Your task to perform on an android device: toggle notifications settings in the gmail app Image 0: 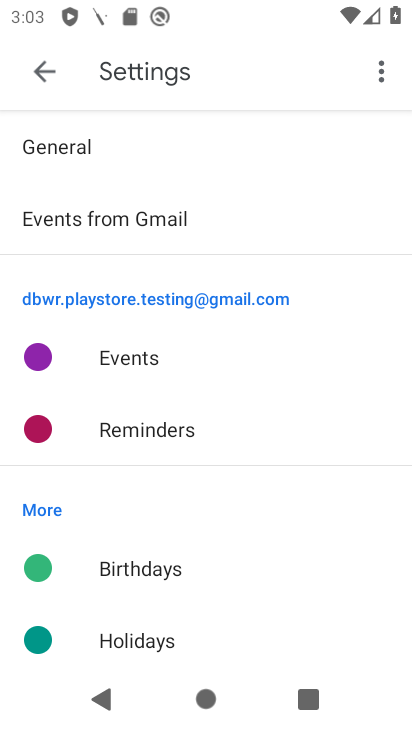
Step 0: press home button
Your task to perform on an android device: toggle notifications settings in the gmail app Image 1: 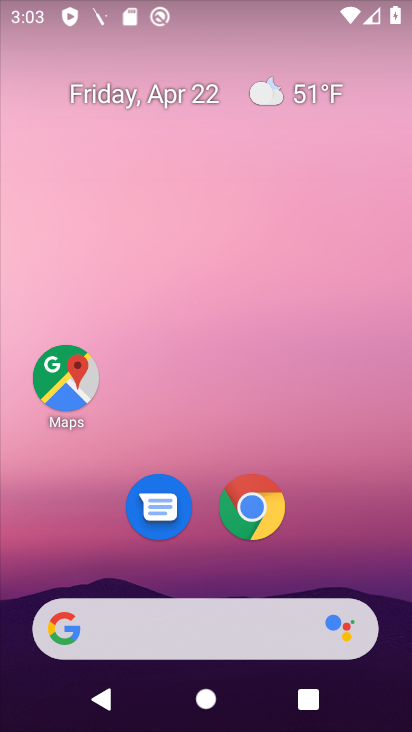
Step 1: drag from (141, 626) to (310, 111)
Your task to perform on an android device: toggle notifications settings in the gmail app Image 2: 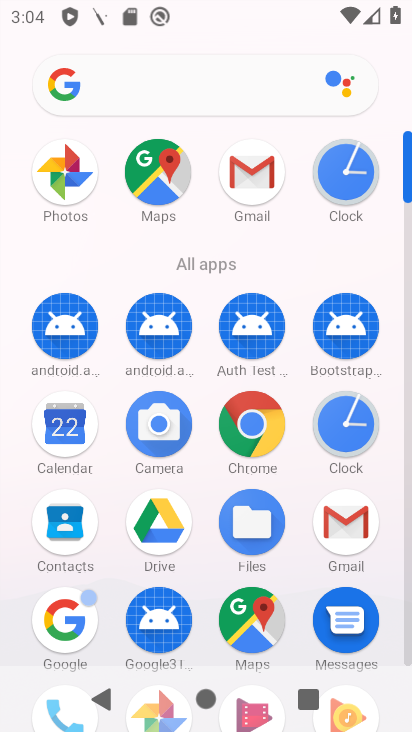
Step 2: click (242, 192)
Your task to perform on an android device: toggle notifications settings in the gmail app Image 3: 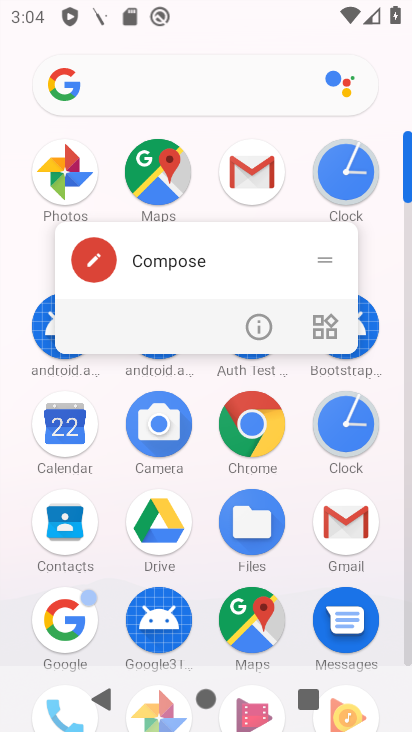
Step 3: click (253, 183)
Your task to perform on an android device: toggle notifications settings in the gmail app Image 4: 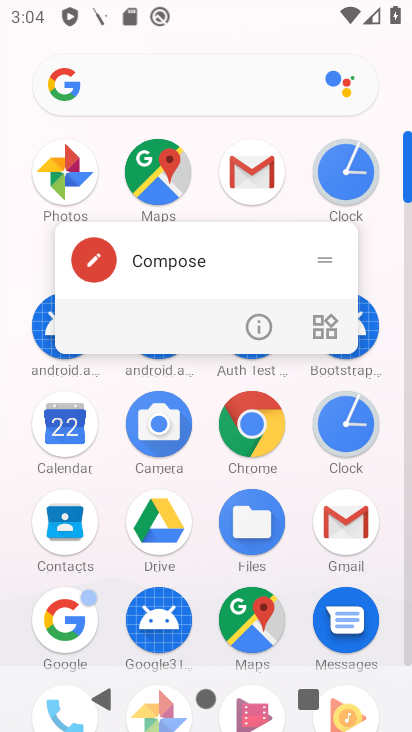
Step 4: click (246, 175)
Your task to perform on an android device: toggle notifications settings in the gmail app Image 5: 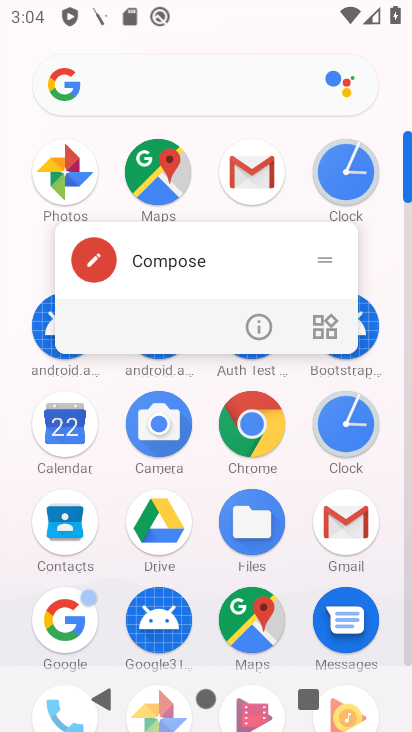
Step 5: click (248, 180)
Your task to perform on an android device: toggle notifications settings in the gmail app Image 6: 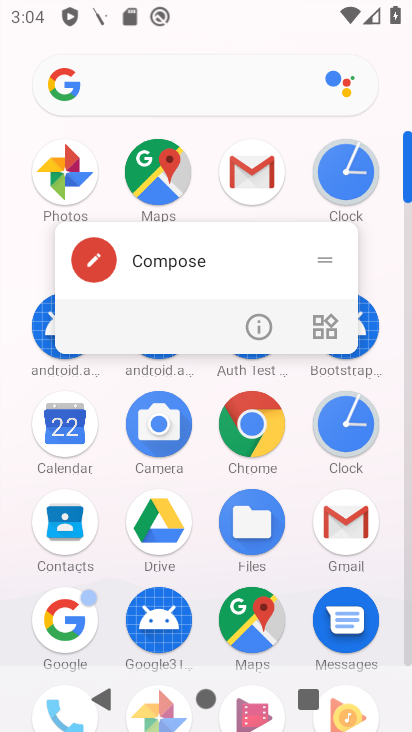
Step 6: click (248, 180)
Your task to perform on an android device: toggle notifications settings in the gmail app Image 7: 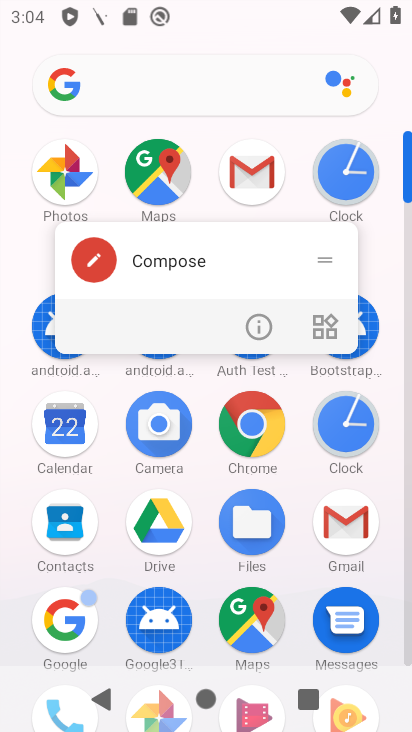
Step 7: click (248, 179)
Your task to perform on an android device: toggle notifications settings in the gmail app Image 8: 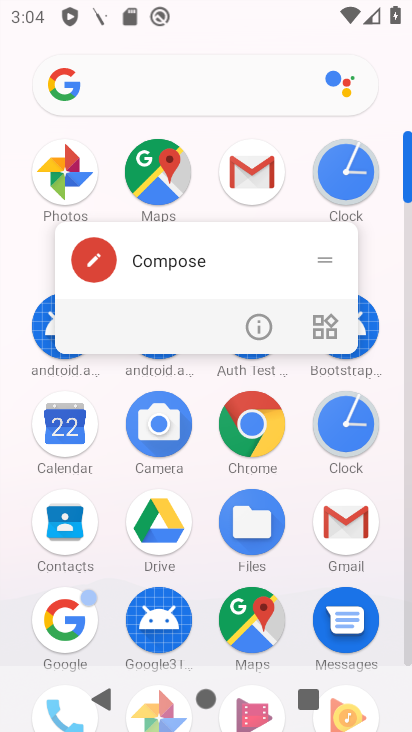
Step 8: click (252, 178)
Your task to perform on an android device: toggle notifications settings in the gmail app Image 9: 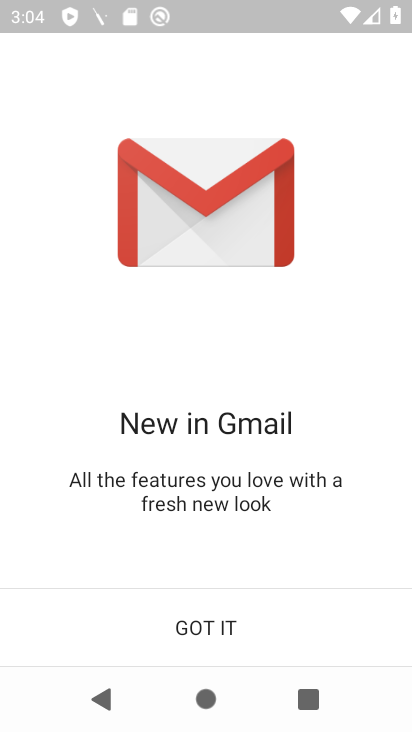
Step 9: click (194, 625)
Your task to perform on an android device: toggle notifications settings in the gmail app Image 10: 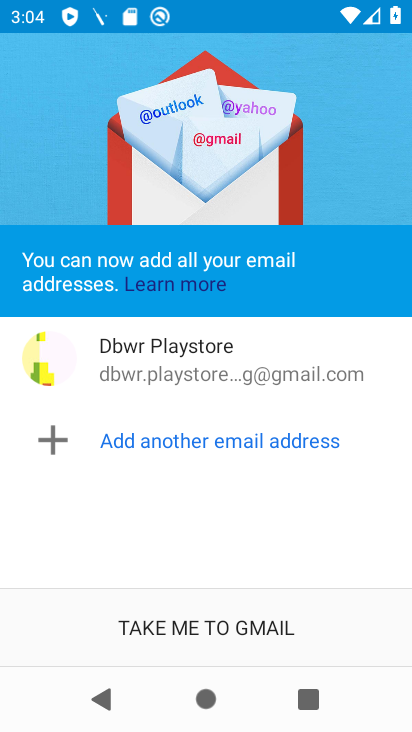
Step 10: click (192, 625)
Your task to perform on an android device: toggle notifications settings in the gmail app Image 11: 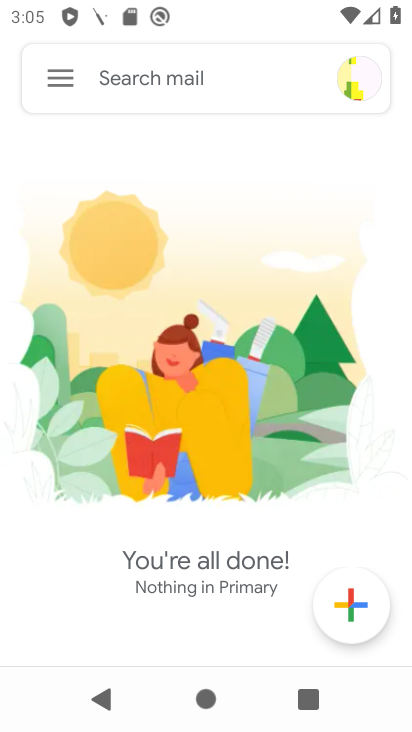
Step 11: click (65, 84)
Your task to perform on an android device: toggle notifications settings in the gmail app Image 12: 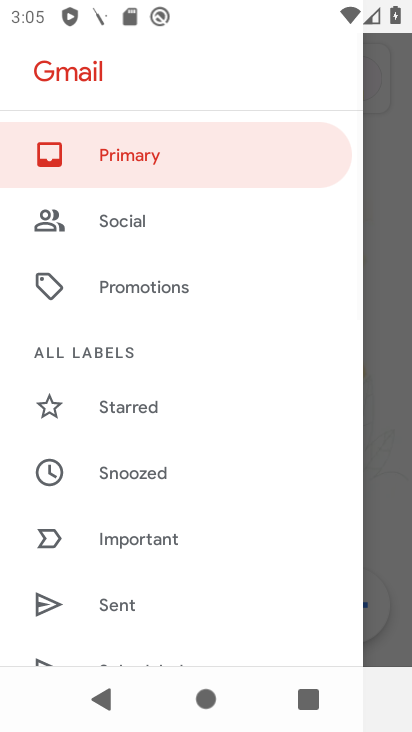
Step 12: drag from (177, 526) to (239, 172)
Your task to perform on an android device: toggle notifications settings in the gmail app Image 13: 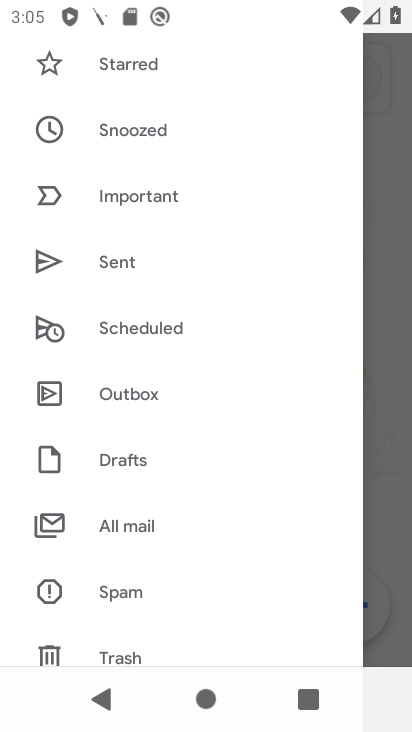
Step 13: drag from (176, 626) to (249, 314)
Your task to perform on an android device: toggle notifications settings in the gmail app Image 14: 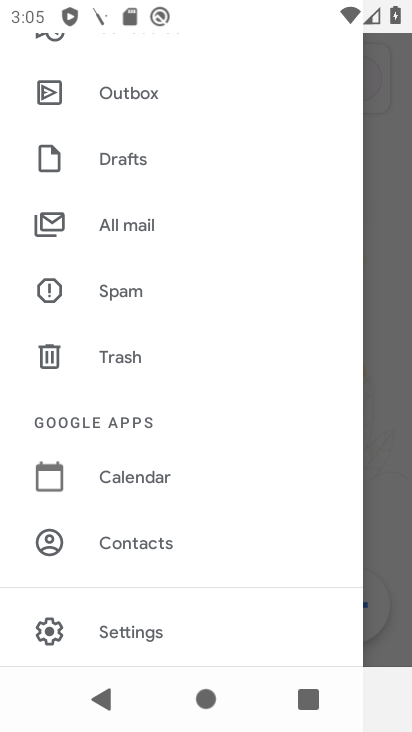
Step 14: click (127, 634)
Your task to perform on an android device: toggle notifications settings in the gmail app Image 15: 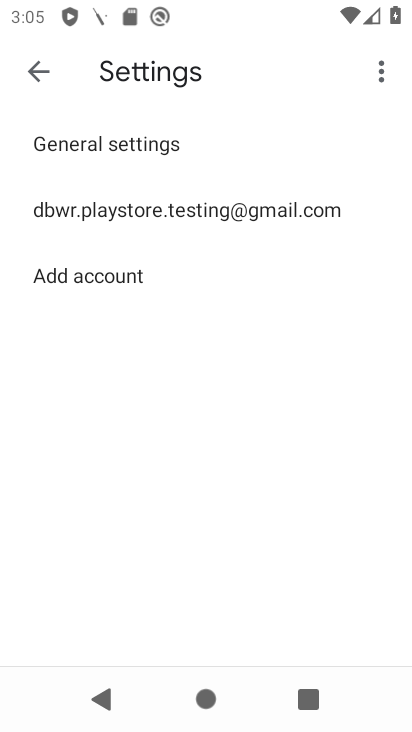
Step 15: click (202, 215)
Your task to perform on an android device: toggle notifications settings in the gmail app Image 16: 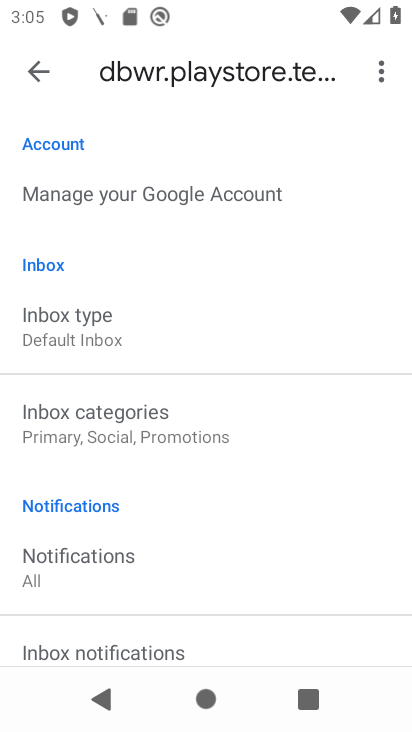
Step 16: click (75, 578)
Your task to perform on an android device: toggle notifications settings in the gmail app Image 17: 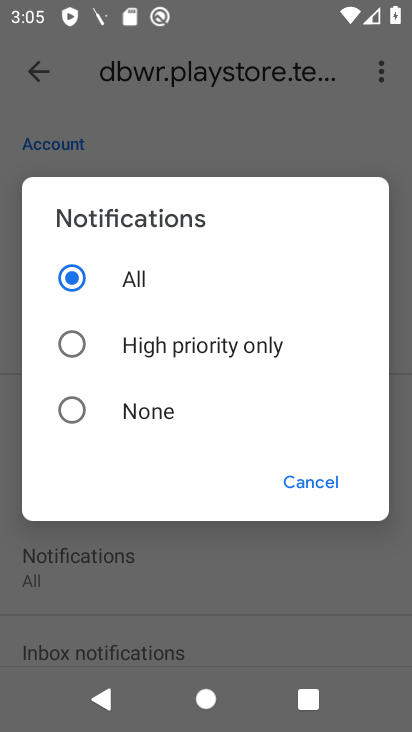
Step 17: click (64, 414)
Your task to perform on an android device: toggle notifications settings in the gmail app Image 18: 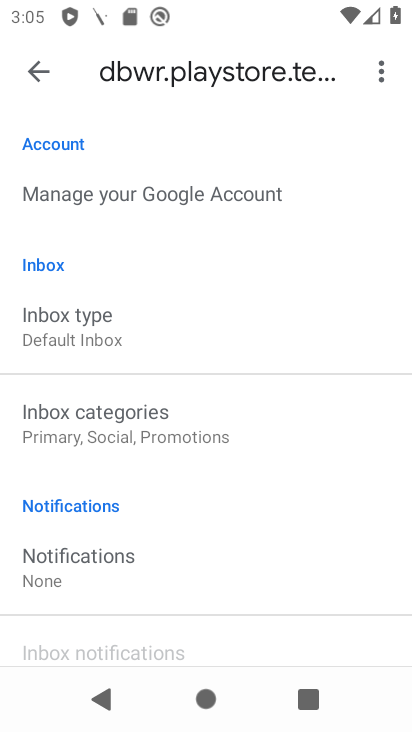
Step 18: task complete